Your task to perform on an android device: star an email in the gmail app Image 0: 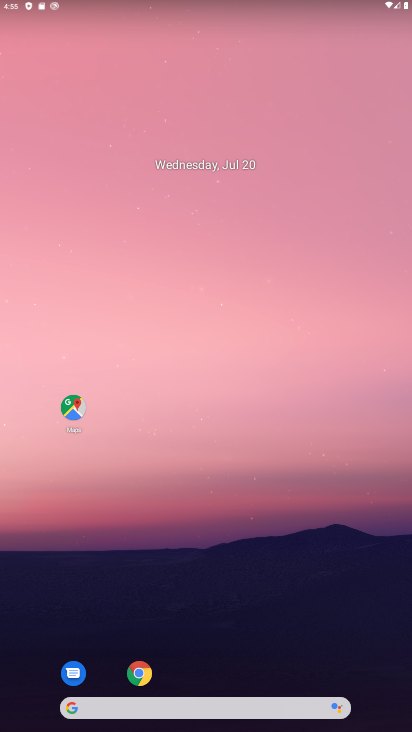
Step 0: drag from (291, 635) to (270, 245)
Your task to perform on an android device: star an email in the gmail app Image 1: 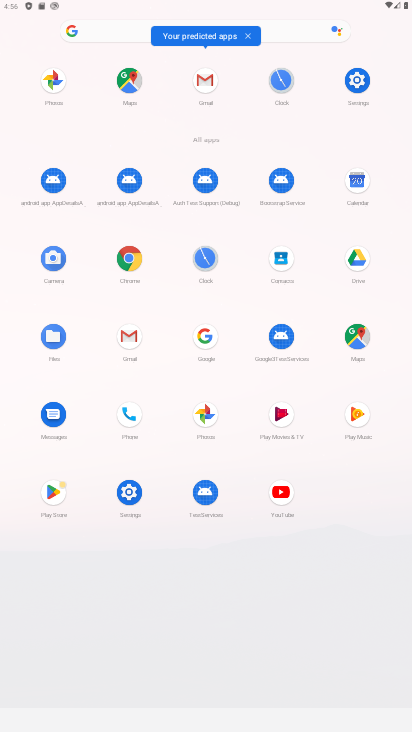
Step 1: click (125, 340)
Your task to perform on an android device: star an email in the gmail app Image 2: 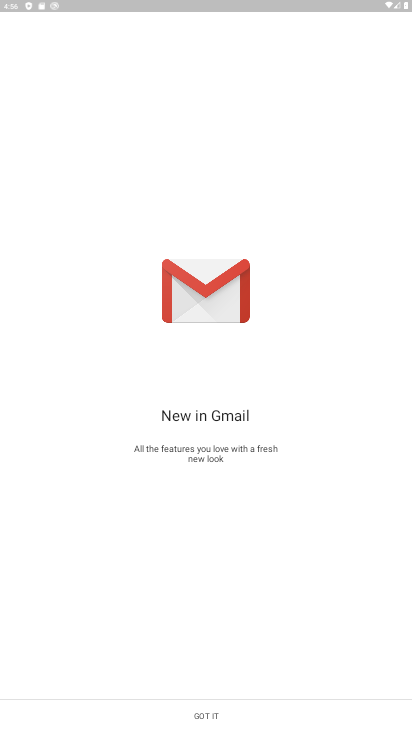
Step 2: click (266, 714)
Your task to perform on an android device: star an email in the gmail app Image 3: 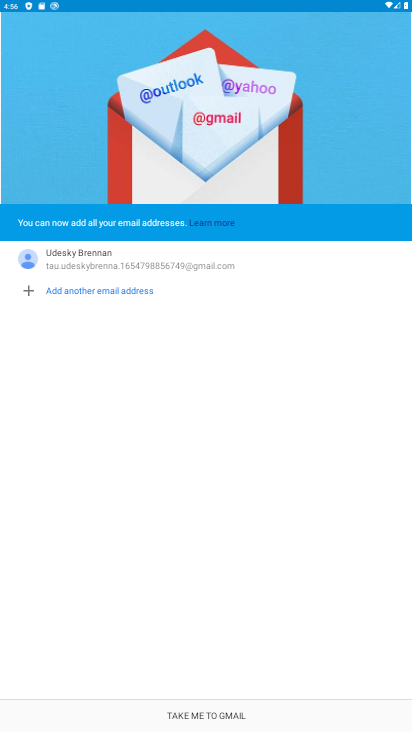
Step 3: click (189, 722)
Your task to perform on an android device: star an email in the gmail app Image 4: 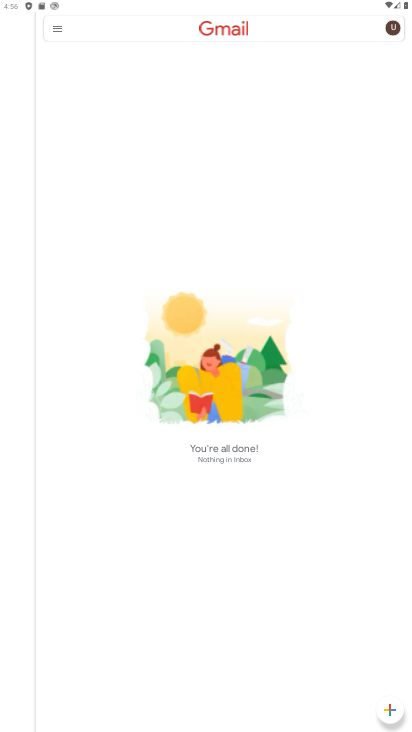
Step 4: click (60, 24)
Your task to perform on an android device: star an email in the gmail app Image 5: 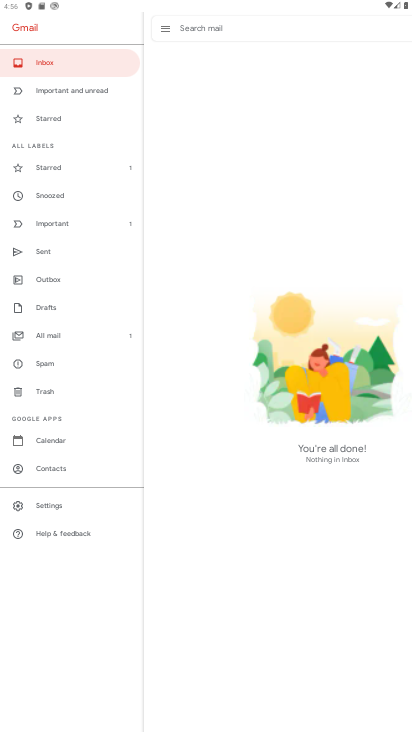
Step 5: click (58, 336)
Your task to perform on an android device: star an email in the gmail app Image 6: 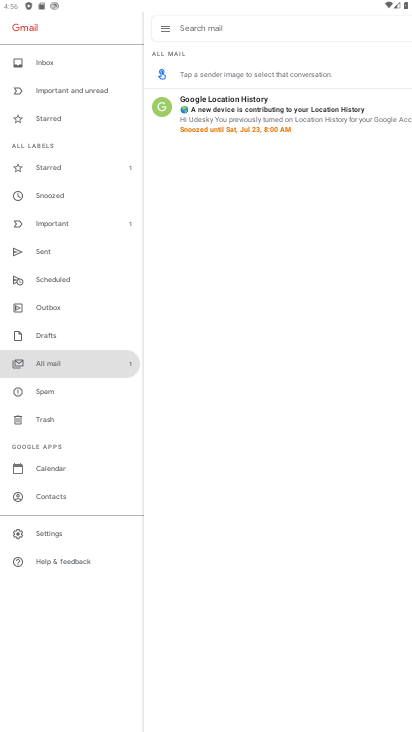
Step 6: click (335, 124)
Your task to perform on an android device: star an email in the gmail app Image 7: 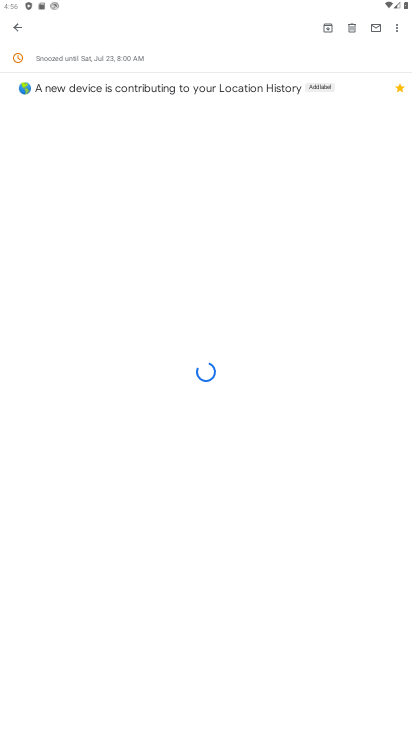
Step 7: task complete